Your task to perform on an android device: Open maps Image 0: 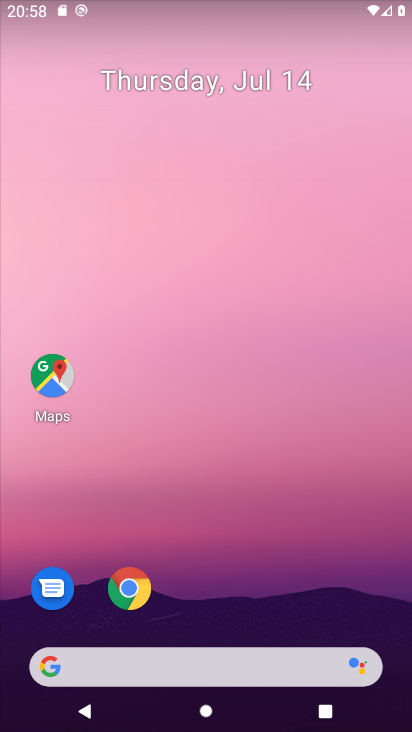
Step 0: drag from (368, 593) to (360, 54)
Your task to perform on an android device: Open maps Image 1: 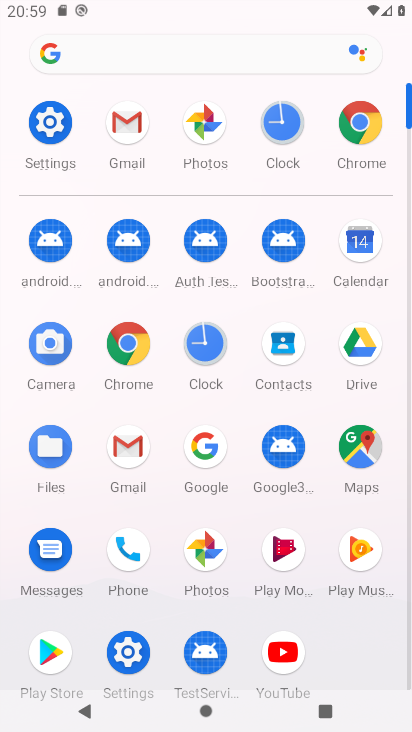
Step 1: click (353, 444)
Your task to perform on an android device: Open maps Image 2: 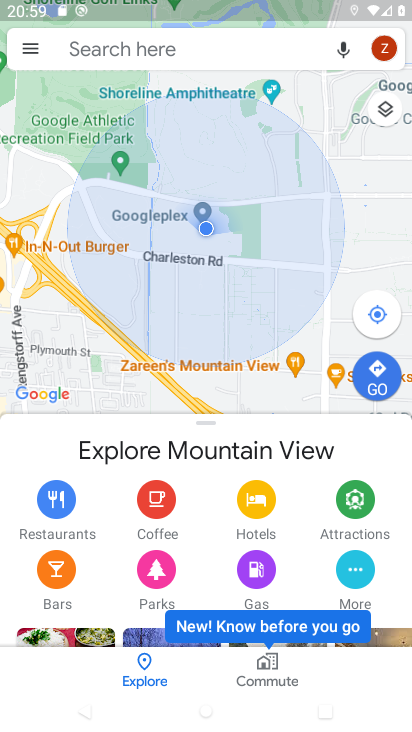
Step 2: task complete